Your task to perform on an android device: Turn off the flashlight Image 0: 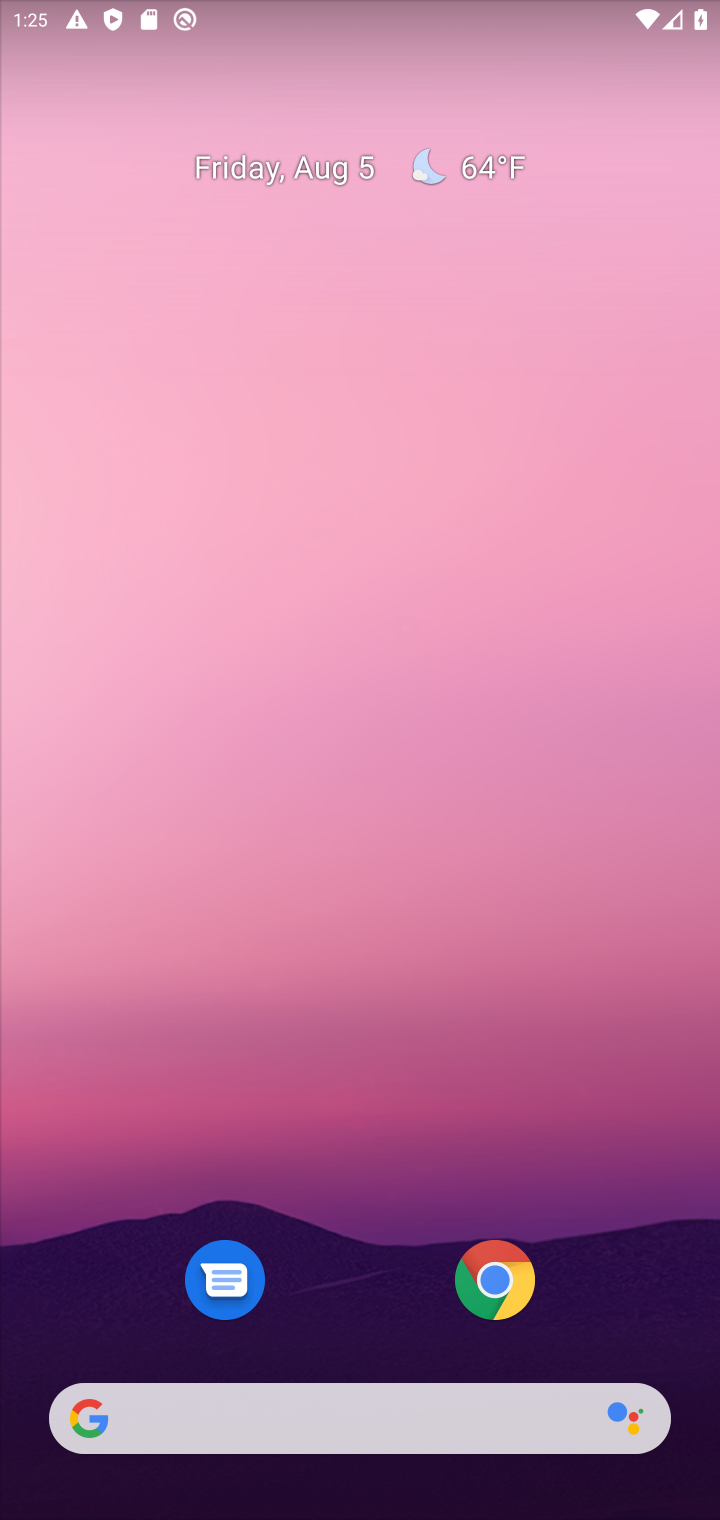
Step 0: drag from (308, 427) to (308, 169)
Your task to perform on an android device: Turn off the flashlight Image 1: 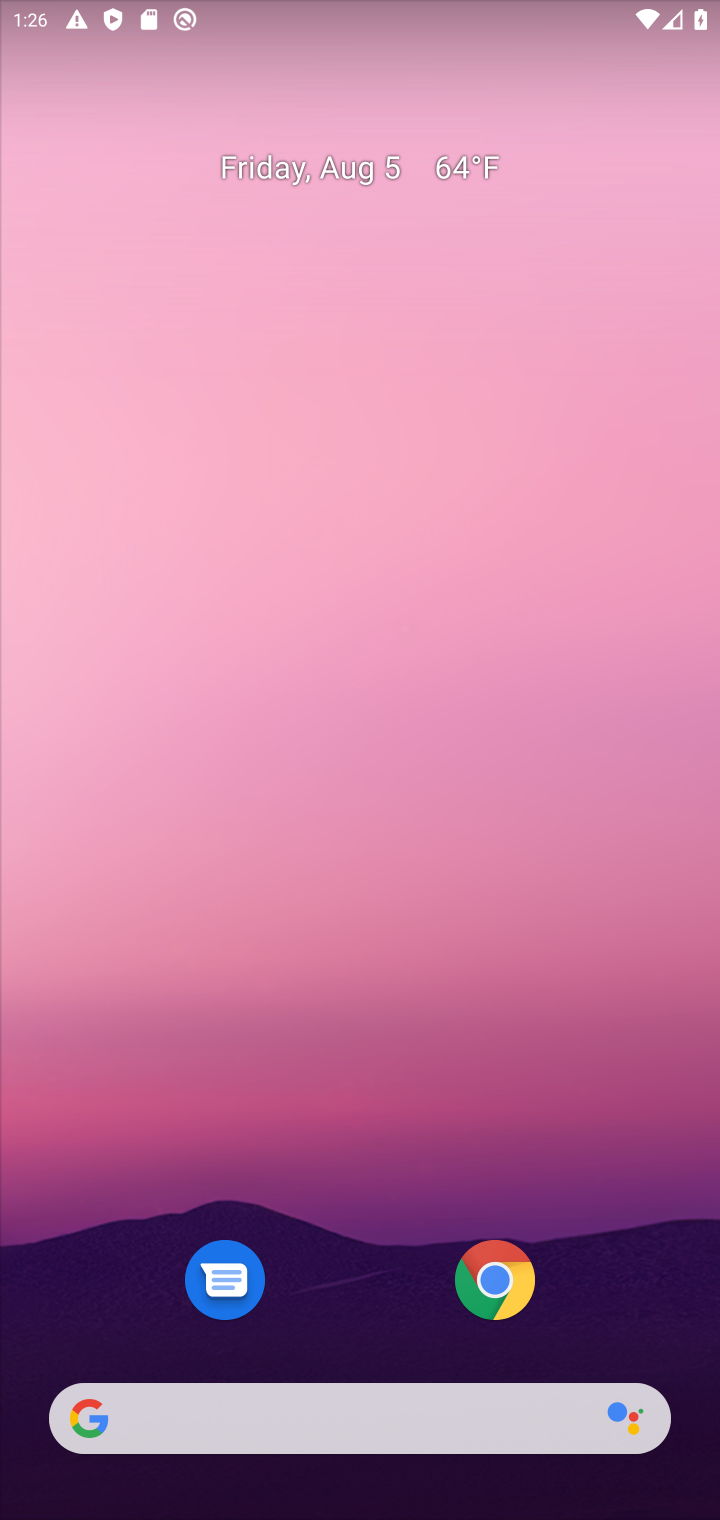
Step 1: drag from (339, 1311) to (172, 8)
Your task to perform on an android device: Turn off the flashlight Image 2: 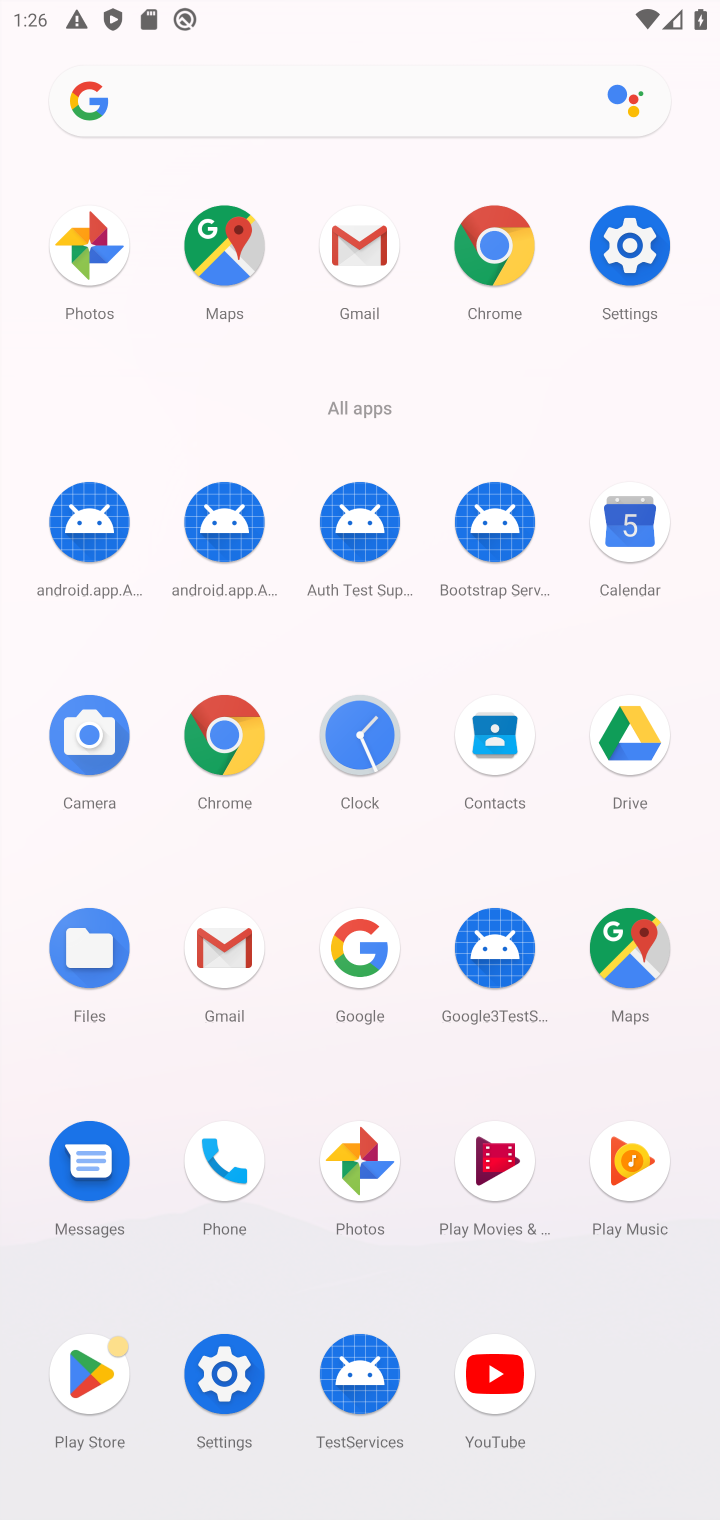
Step 2: click (630, 251)
Your task to perform on an android device: Turn off the flashlight Image 3: 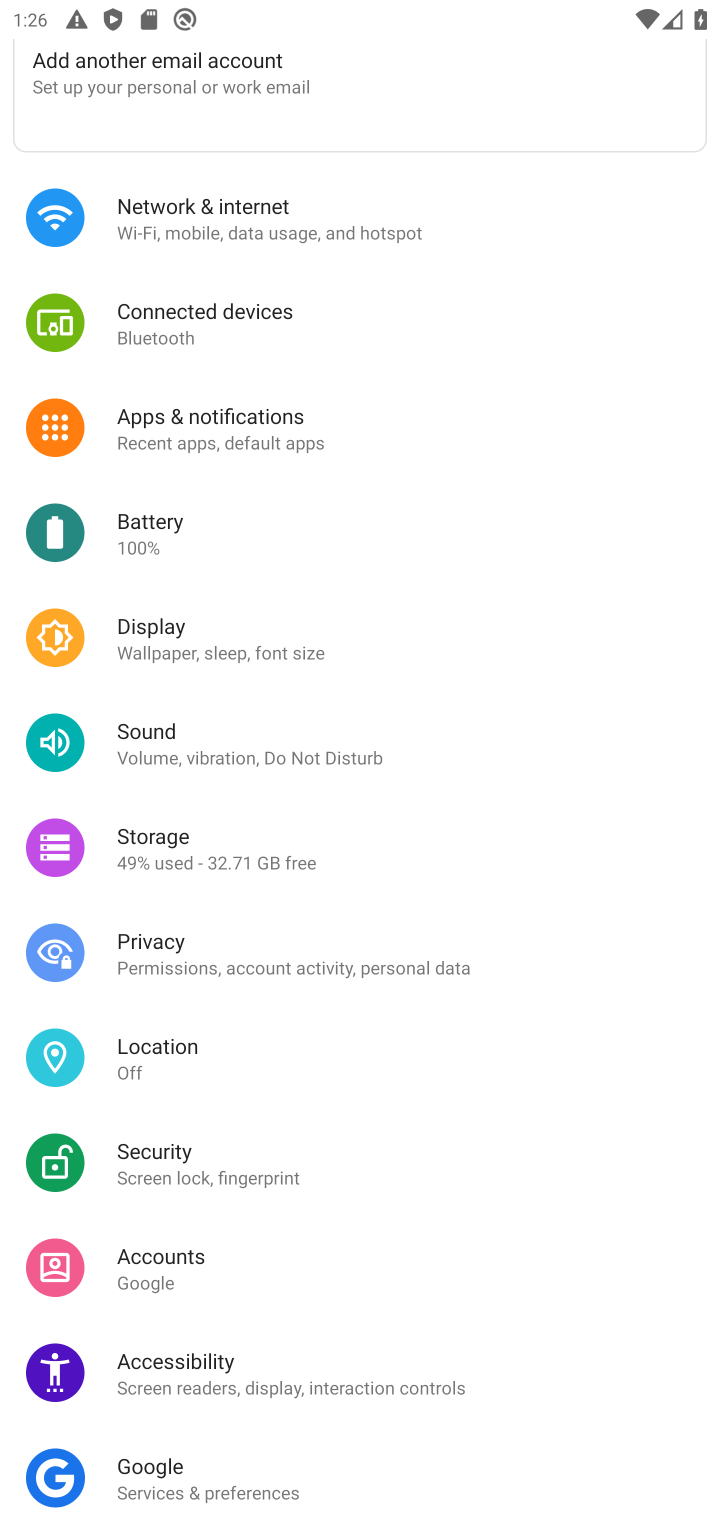
Step 3: task complete